Your task to perform on an android device: Open privacy settings Image 0: 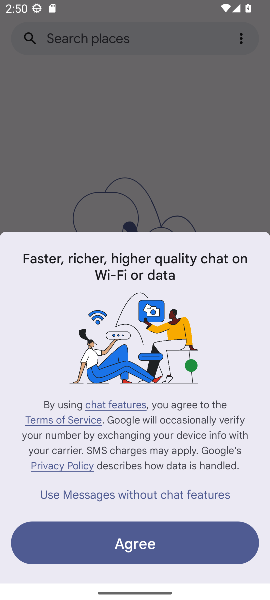
Step 0: press home button
Your task to perform on an android device: Open privacy settings Image 1: 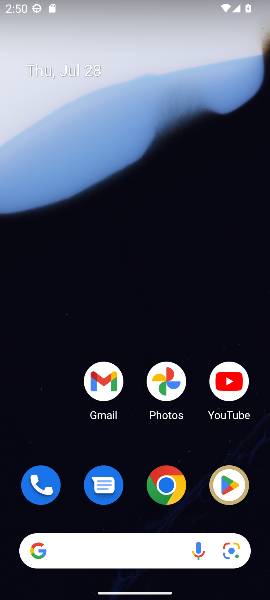
Step 1: drag from (75, 448) to (107, 214)
Your task to perform on an android device: Open privacy settings Image 2: 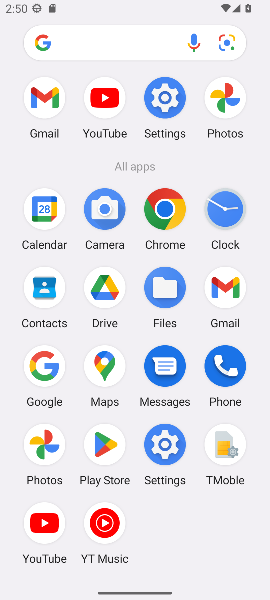
Step 2: click (160, 440)
Your task to perform on an android device: Open privacy settings Image 3: 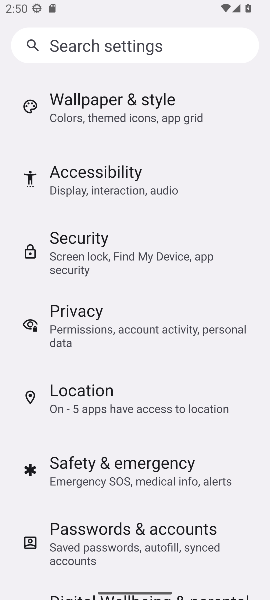
Step 3: click (117, 323)
Your task to perform on an android device: Open privacy settings Image 4: 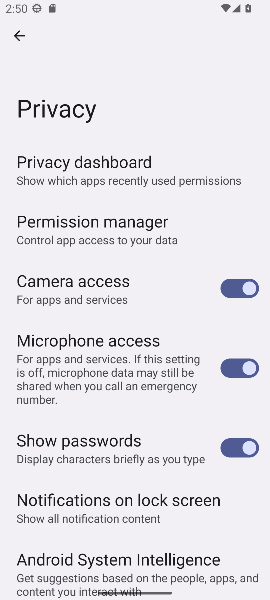
Step 4: task complete